Your task to perform on an android device: Show me recent news Image 0: 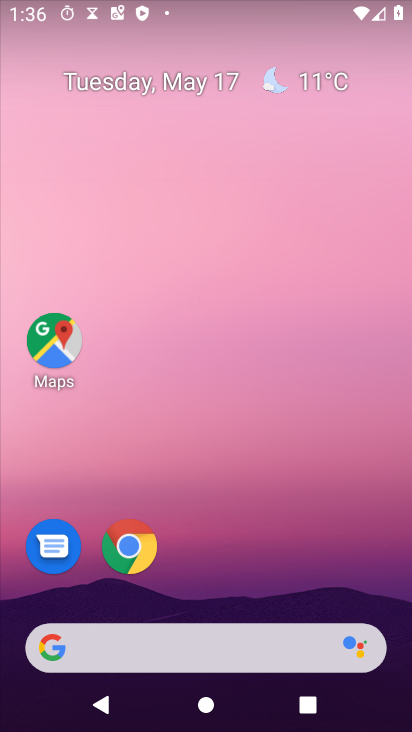
Step 0: press home button
Your task to perform on an android device: Show me recent news Image 1: 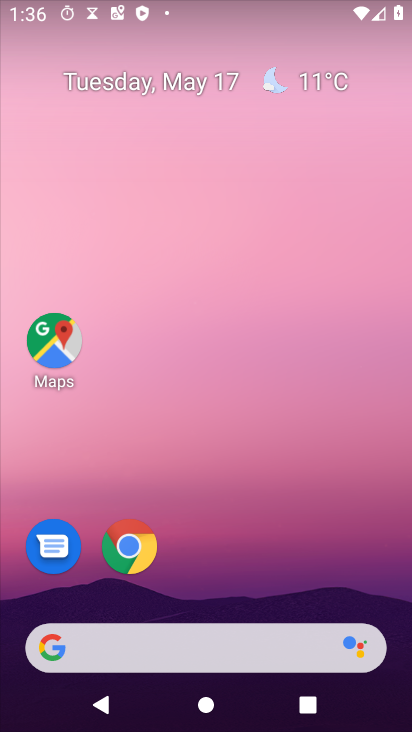
Step 1: click (57, 652)
Your task to perform on an android device: Show me recent news Image 2: 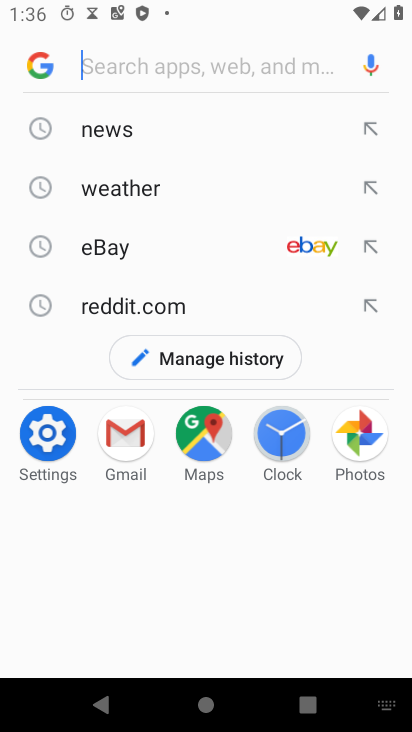
Step 2: click (116, 132)
Your task to perform on an android device: Show me recent news Image 3: 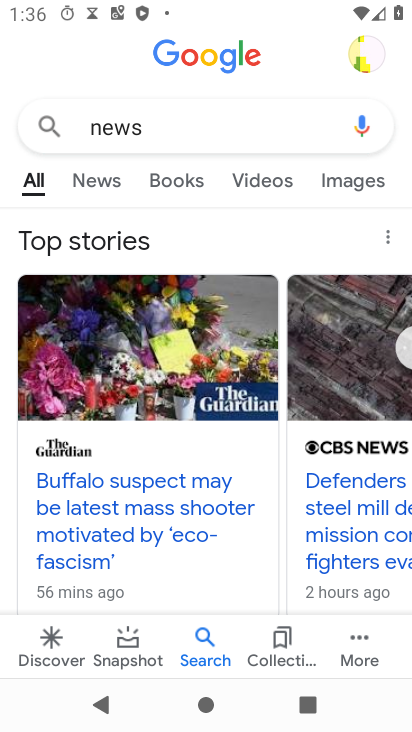
Step 3: click (105, 176)
Your task to perform on an android device: Show me recent news Image 4: 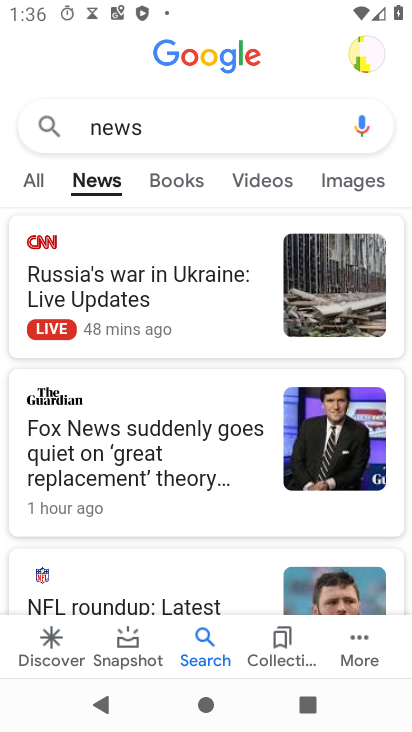
Step 4: task complete